Your task to perform on an android device: What's the weather today? Image 0: 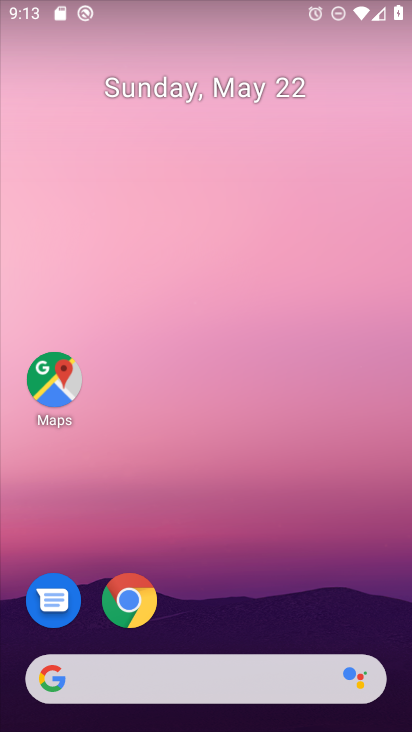
Step 0: drag from (238, 612) to (313, 151)
Your task to perform on an android device: What's the weather today? Image 1: 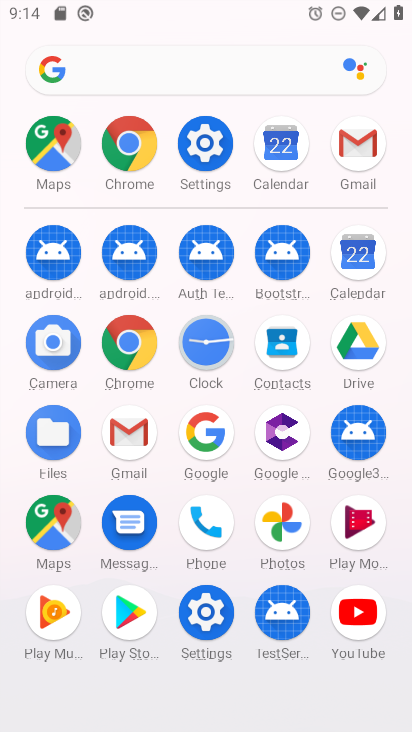
Step 1: click (213, 429)
Your task to perform on an android device: What's the weather today? Image 2: 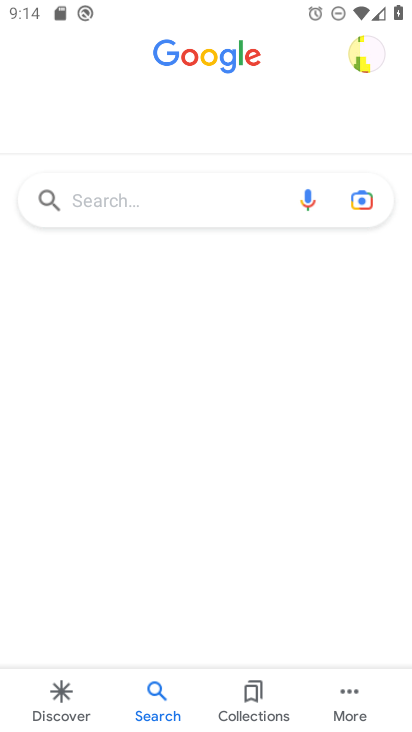
Step 2: click (195, 179)
Your task to perform on an android device: What's the weather today? Image 3: 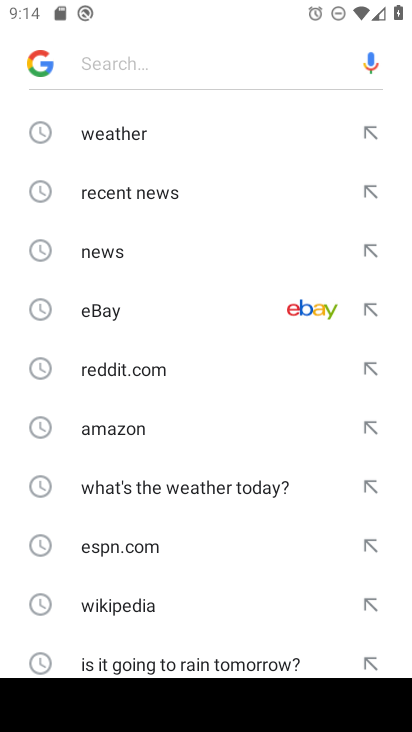
Step 3: click (187, 128)
Your task to perform on an android device: What's the weather today? Image 4: 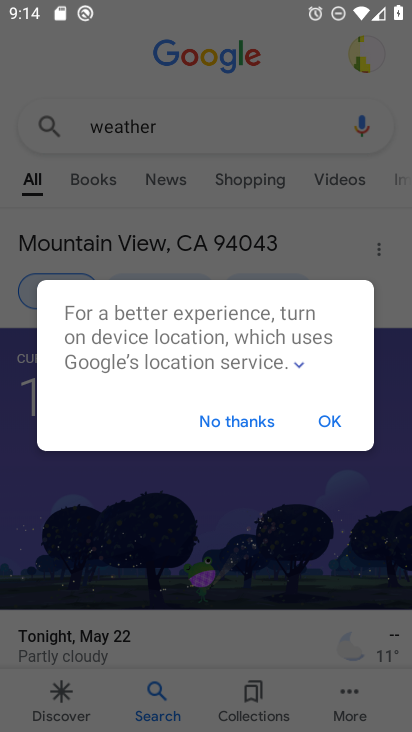
Step 4: click (326, 425)
Your task to perform on an android device: What's the weather today? Image 5: 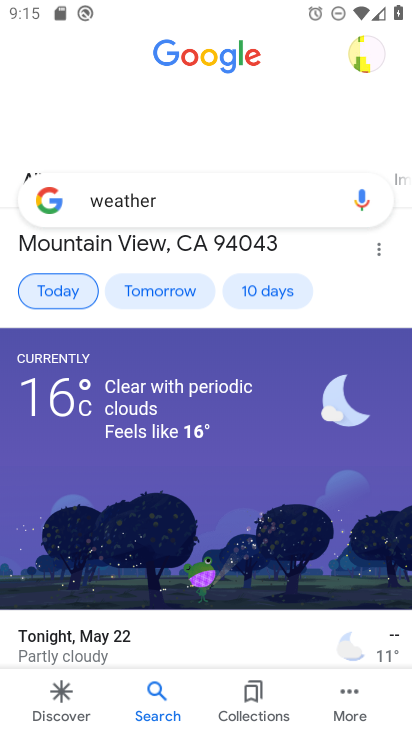
Step 5: task complete